Your task to perform on an android device: What's the weather today? Image 0: 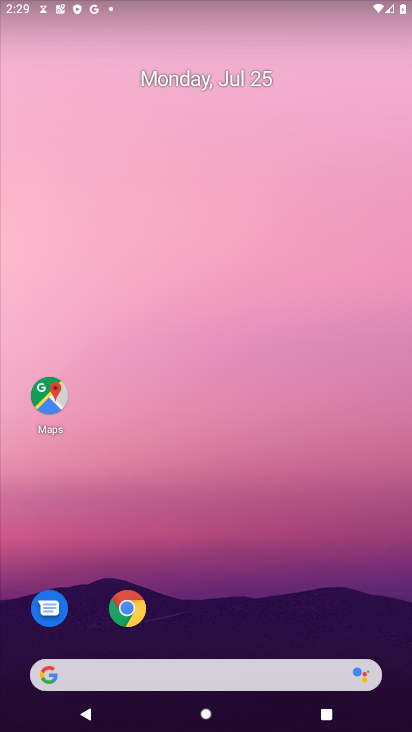
Step 0: drag from (177, 667) to (147, 72)
Your task to perform on an android device: What's the weather today? Image 1: 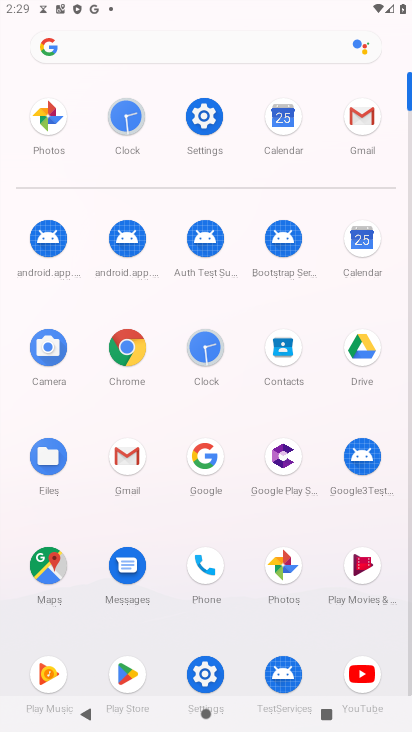
Step 1: click (206, 456)
Your task to perform on an android device: What's the weather today? Image 2: 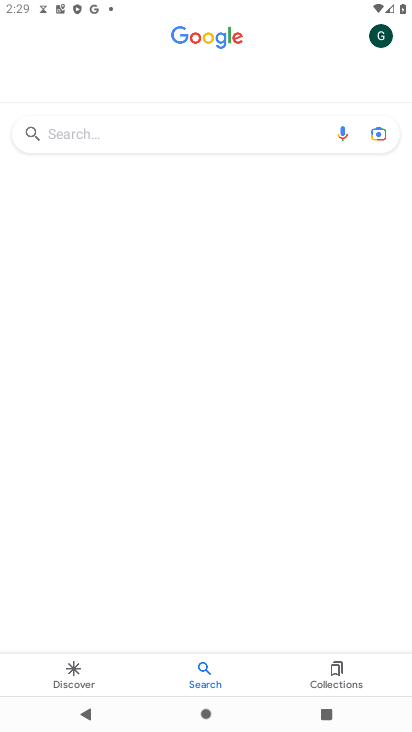
Step 2: click (162, 139)
Your task to perform on an android device: What's the weather today? Image 3: 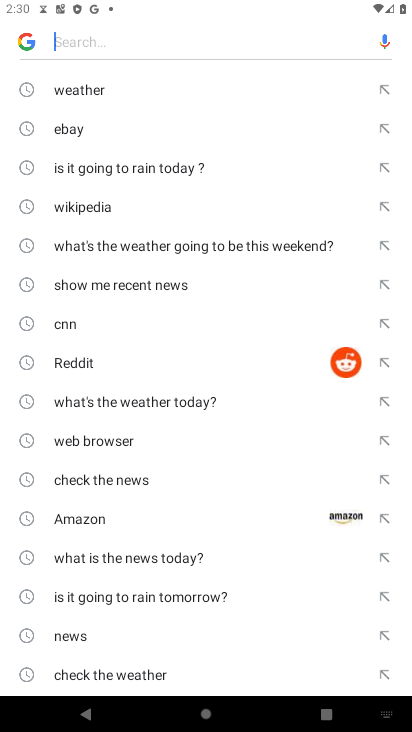
Step 3: click (82, 88)
Your task to perform on an android device: What's the weather today? Image 4: 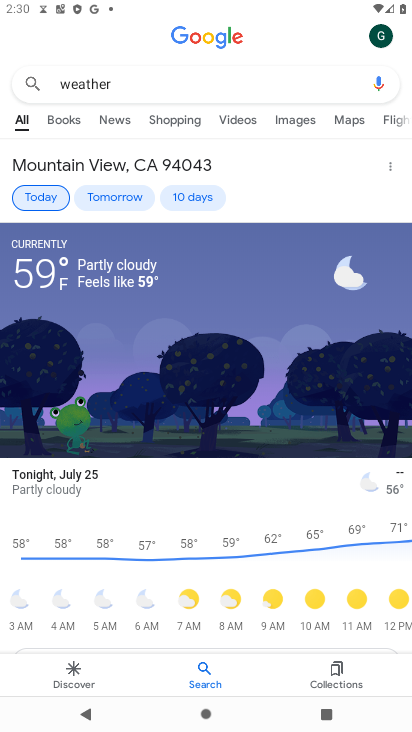
Step 4: task complete